Your task to perform on an android device: open app "PUBG MOBILE" Image 0: 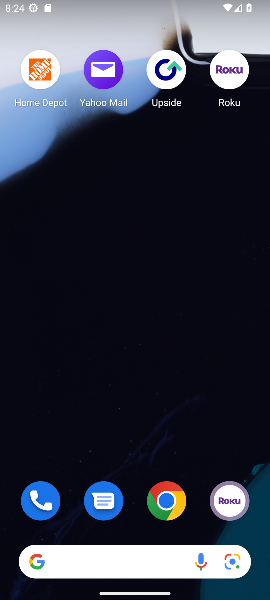
Step 0: drag from (132, 526) to (167, 134)
Your task to perform on an android device: open app "PUBG MOBILE" Image 1: 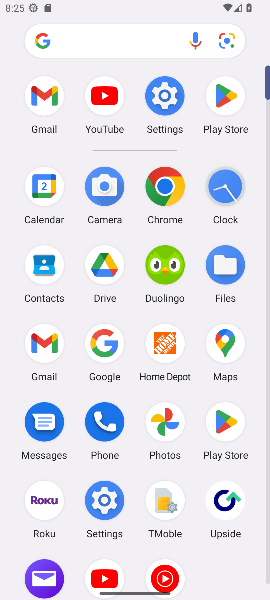
Step 1: click (241, 92)
Your task to perform on an android device: open app "PUBG MOBILE" Image 2: 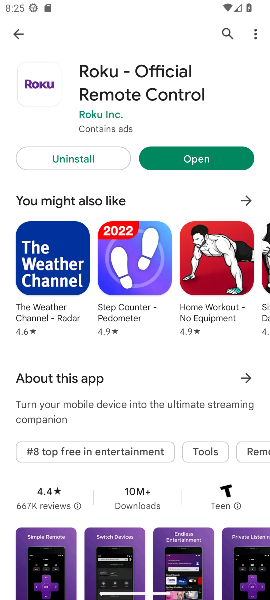
Step 2: click (230, 33)
Your task to perform on an android device: open app "PUBG MOBILE" Image 3: 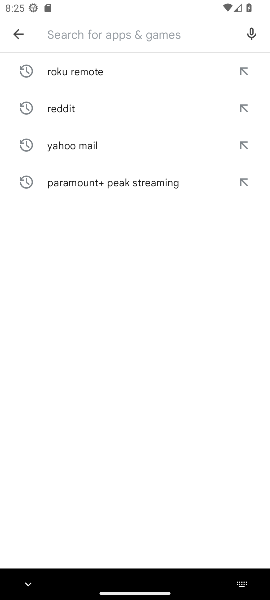
Step 3: click (66, 35)
Your task to perform on an android device: open app "PUBG MOBILE" Image 4: 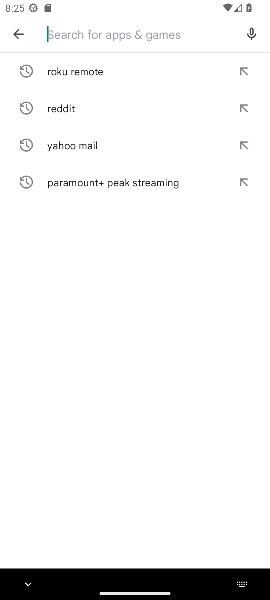
Step 4: click (67, 36)
Your task to perform on an android device: open app "PUBG MOBILE" Image 5: 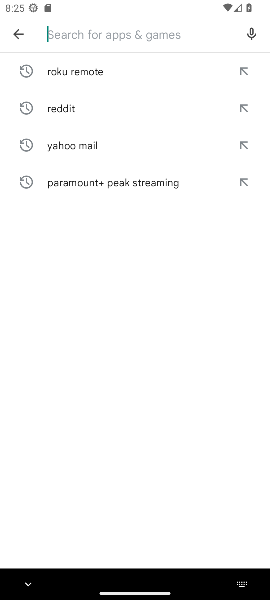
Step 5: type "PUBG MOBILE"
Your task to perform on an android device: open app "PUBG MOBILE" Image 6: 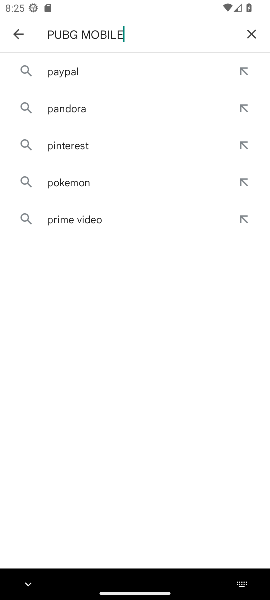
Step 6: type ""
Your task to perform on an android device: open app "PUBG MOBILE" Image 7: 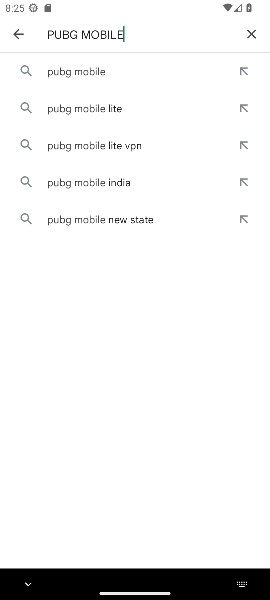
Step 7: click (89, 66)
Your task to perform on an android device: open app "PUBG MOBILE" Image 8: 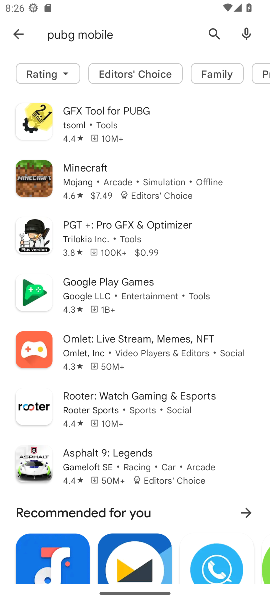
Step 8: task complete